Your task to perform on an android device: set the stopwatch Image 0: 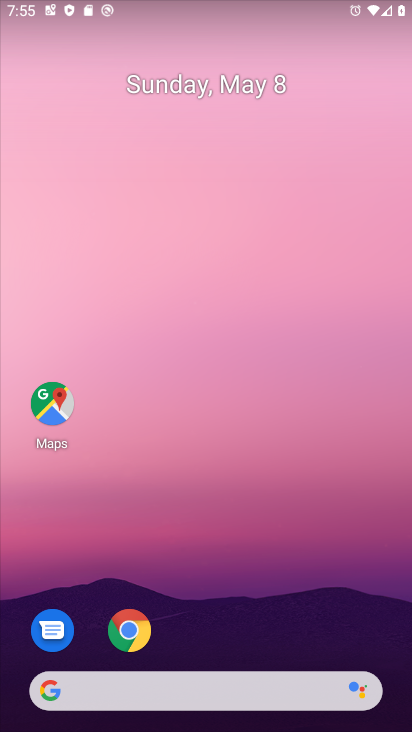
Step 0: drag from (216, 688) to (151, 35)
Your task to perform on an android device: set the stopwatch Image 1: 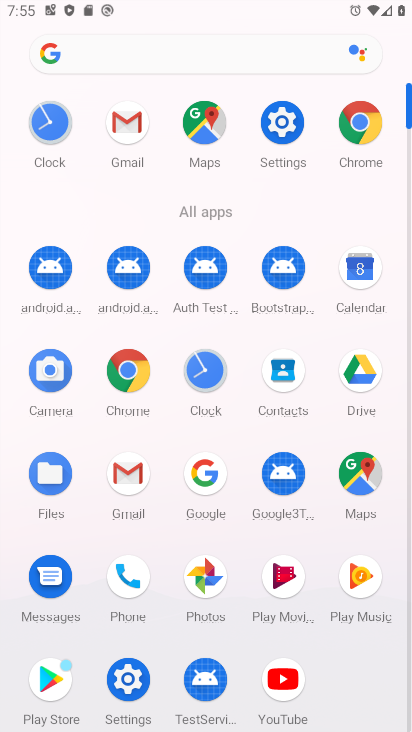
Step 1: click (204, 365)
Your task to perform on an android device: set the stopwatch Image 2: 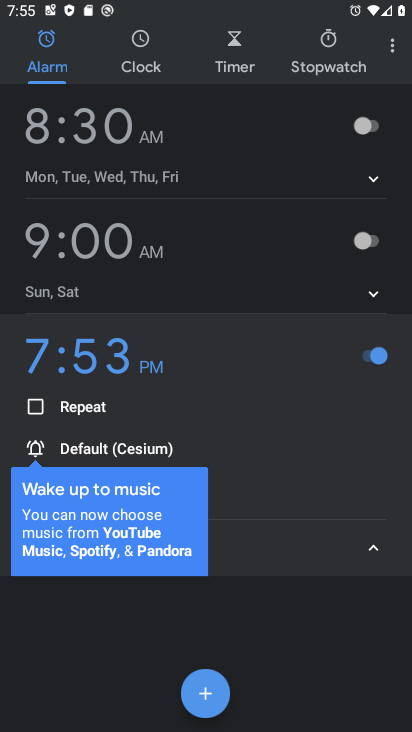
Step 2: click (335, 44)
Your task to perform on an android device: set the stopwatch Image 3: 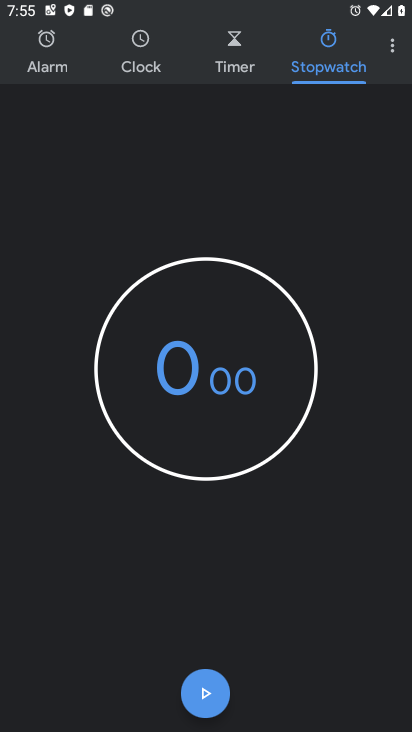
Step 3: click (224, 692)
Your task to perform on an android device: set the stopwatch Image 4: 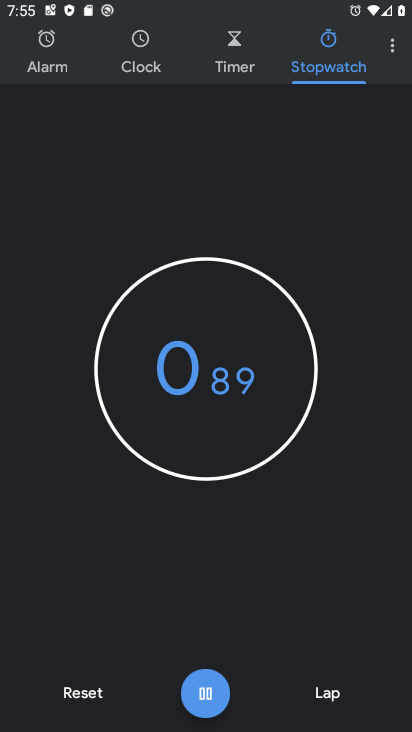
Step 4: click (215, 690)
Your task to perform on an android device: set the stopwatch Image 5: 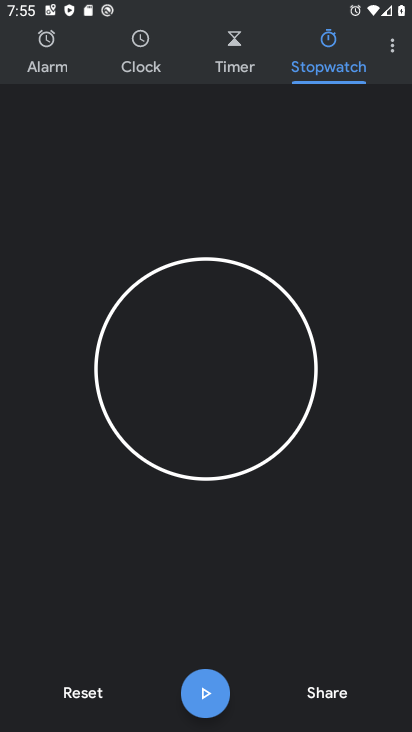
Step 5: task complete